Your task to perform on an android device: Go to battery settings Image 0: 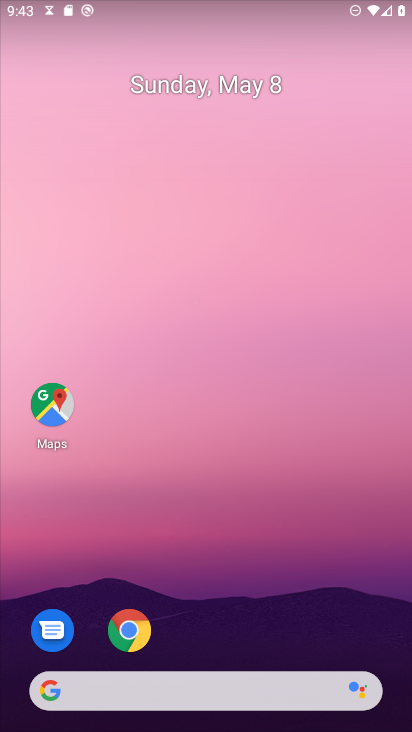
Step 0: drag from (225, 689) to (375, 161)
Your task to perform on an android device: Go to battery settings Image 1: 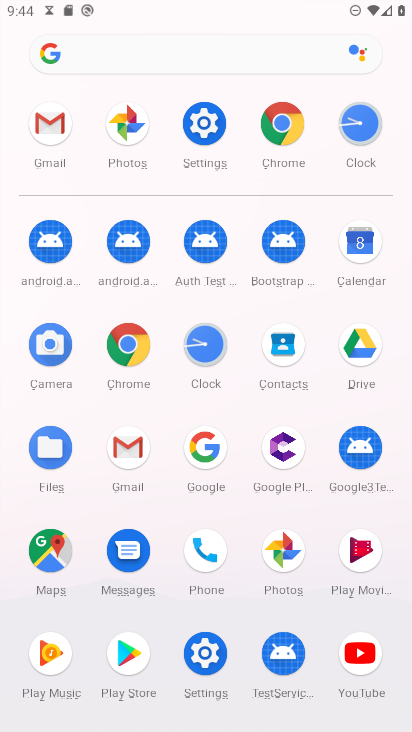
Step 1: click (201, 138)
Your task to perform on an android device: Go to battery settings Image 2: 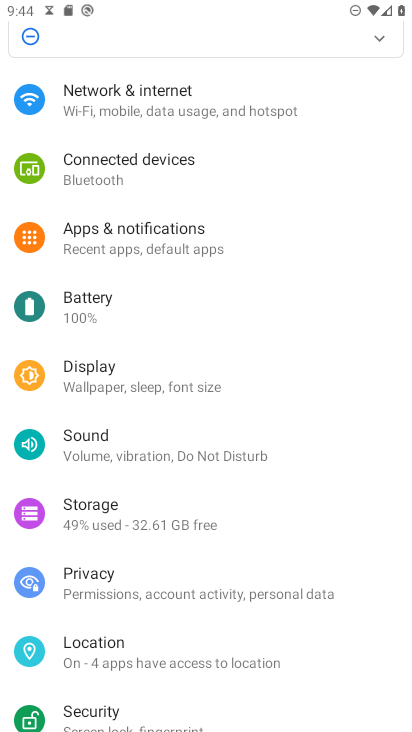
Step 2: click (94, 311)
Your task to perform on an android device: Go to battery settings Image 3: 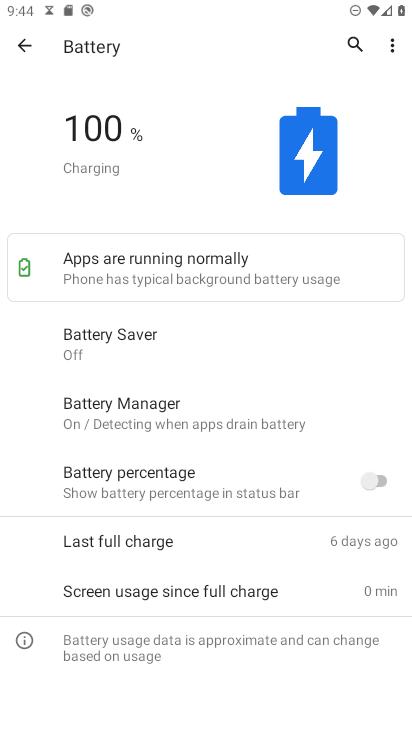
Step 3: task complete